Your task to perform on an android device: turn off notifications settings in the gmail app Image 0: 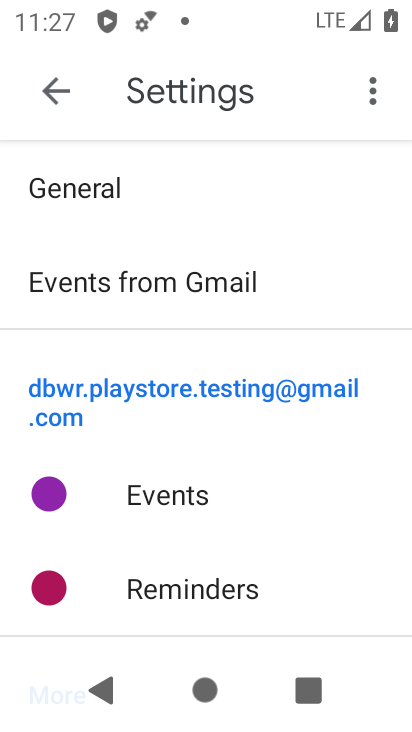
Step 0: press home button
Your task to perform on an android device: turn off notifications settings in the gmail app Image 1: 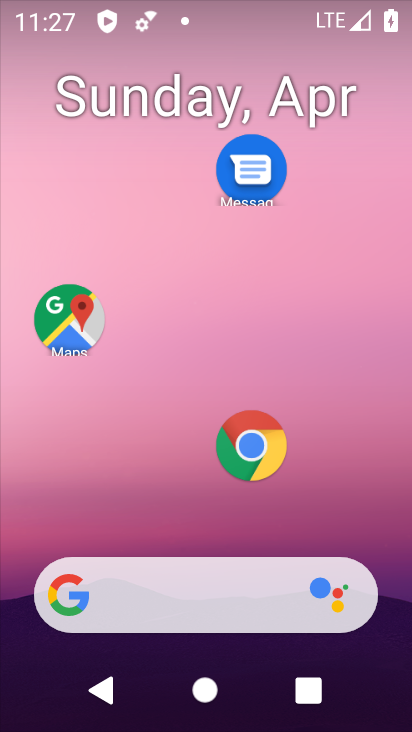
Step 1: drag from (205, 595) to (369, 85)
Your task to perform on an android device: turn off notifications settings in the gmail app Image 2: 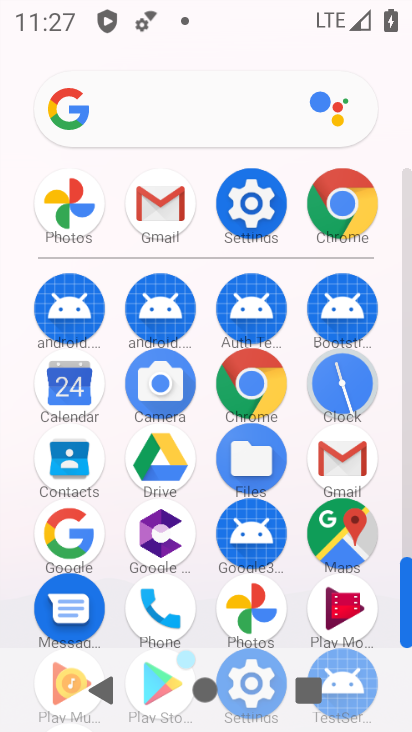
Step 2: click (153, 211)
Your task to perform on an android device: turn off notifications settings in the gmail app Image 3: 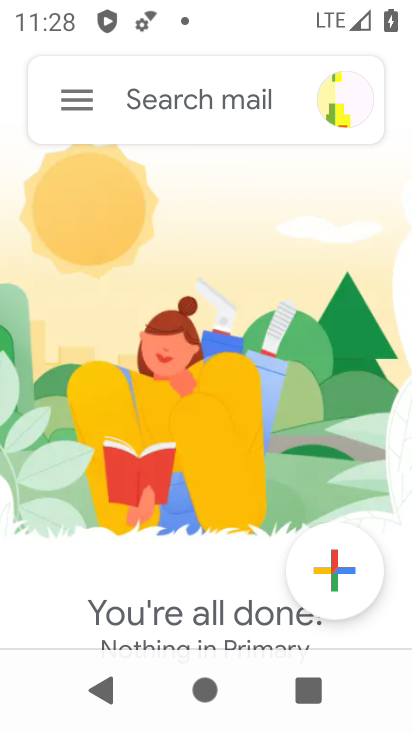
Step 3: click (85, 106)
Your task to perform on an android device: turn off notifications settings in the gmail app Image 4: 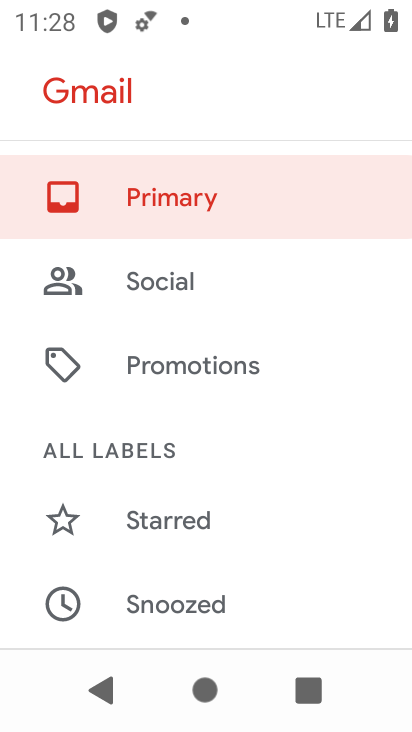
Step 4: drag from (231, 561) to (363, 9)
Your task to perform on an android device: turn off notifications settings in the gmail app Image 5: 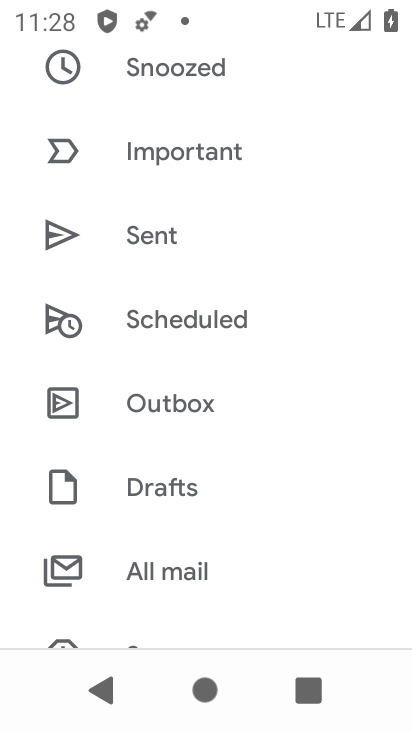
Step 5: drag from (237, 614) to (306, 90)
Your task to perform on an android device: turn off notifications settings in the gmail app Image 6: 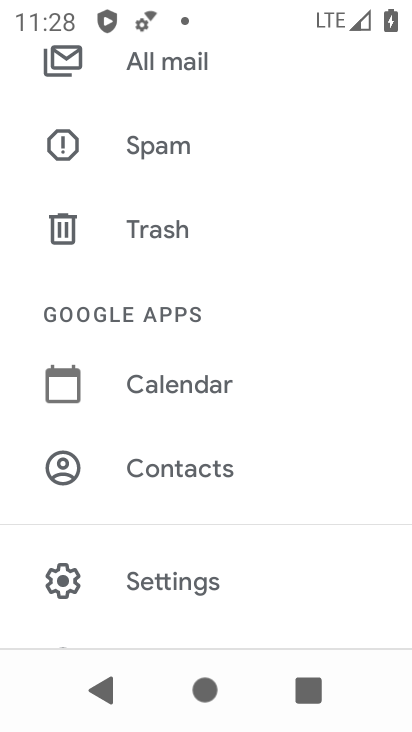
Step 6: click (174, 581)
Your task to perform on an android device: turn off notifications settings in the gmail app Image 7: 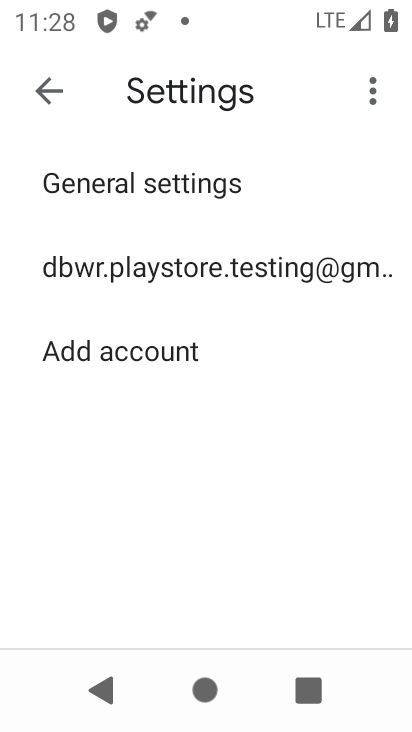
Step 7: click (280, 273)
Your task to perform on an android device: turn off notifications settings in the gmail app Image 8: 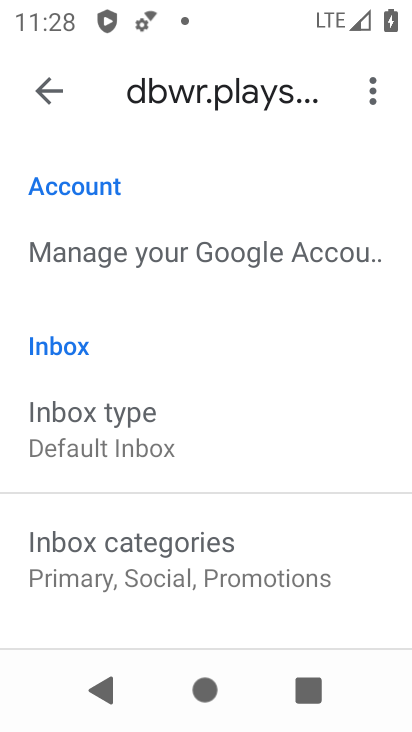
Step 8: drag from (158, 558) to (277, 162)
Your task to perform on an android device: turn off notifications settings in the gmail app Image 9: 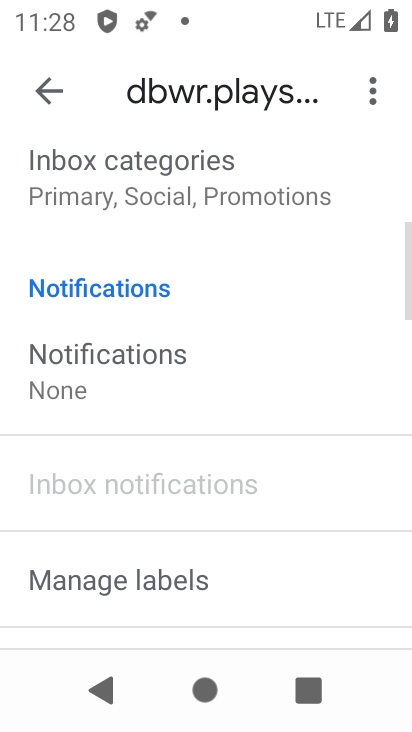
Step 9: click (116, 400)
Your task to perform on an android device: turn off notifications settings in the gmail app Image 10: 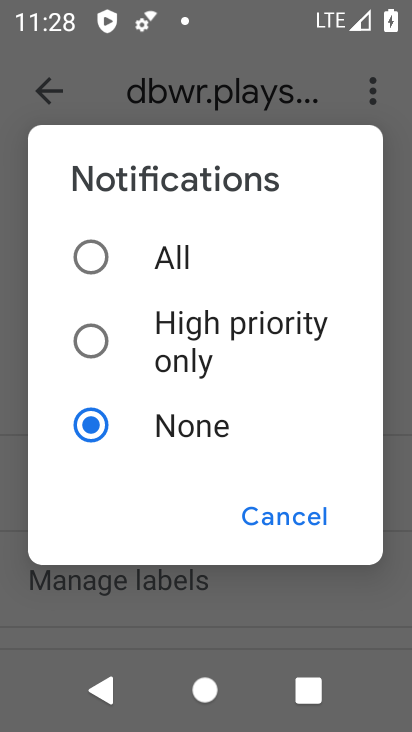
Step 10: task complete